Your task to perform on an android device: turn on translation in the chrome app Image 0: 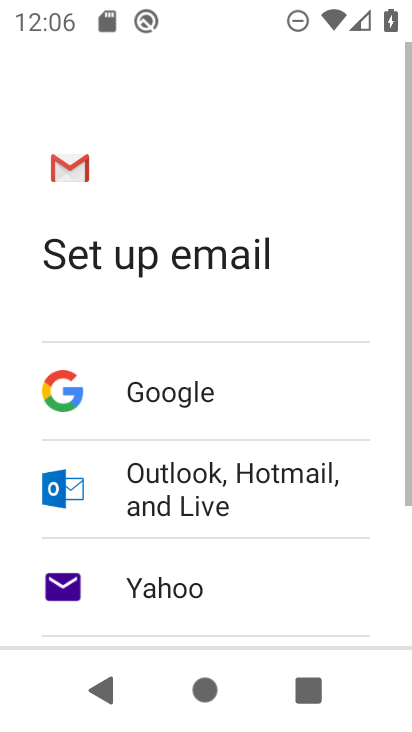
Step 0: press home button
Your task to perform on an android device: turn on translation in the chrome app Image 1: 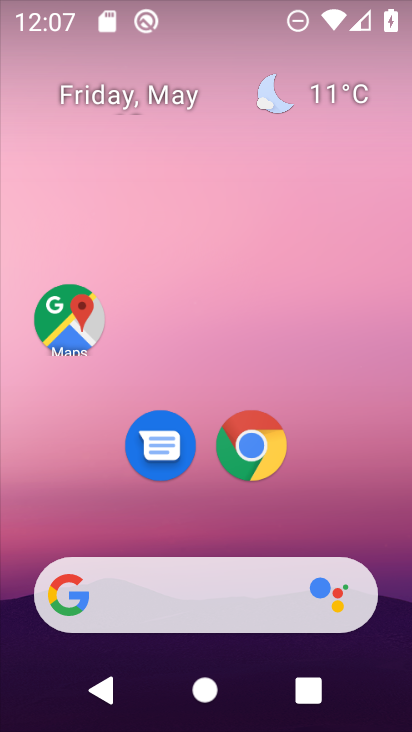
Step 1: click (240, 440)
Your task to perform on an android device: turn on translation in the chrome app Image 2: 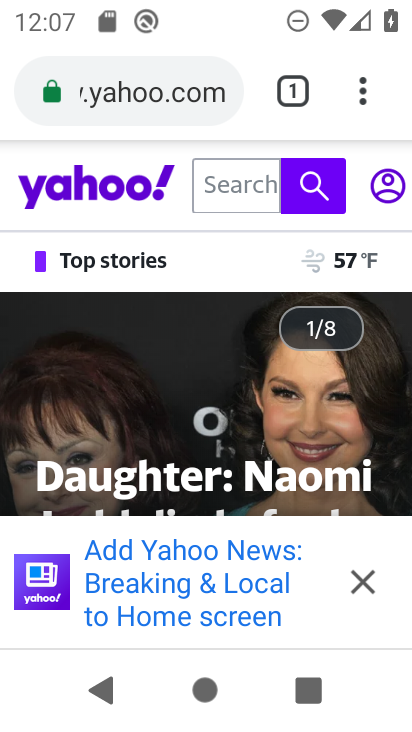
Step 2: drag from (359, 86) to (113, 463)
Your task to perform on an android device: turn on translation in the chrome app Image 3: 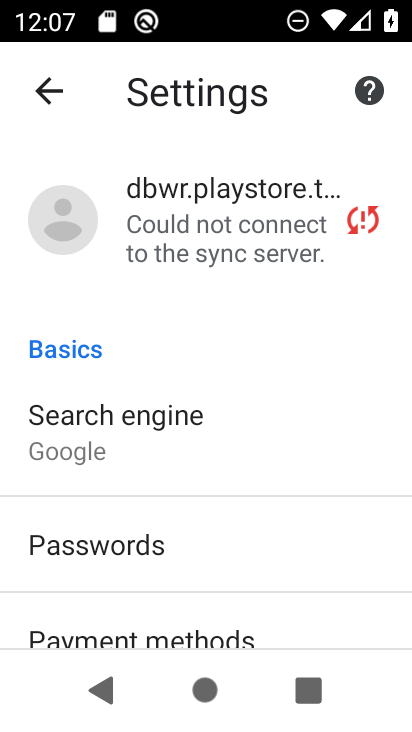
Step 3: drag from (133, 569) to (111, 224)
Your task to perform on an android device: turn on translation in the chrome app Image 4: 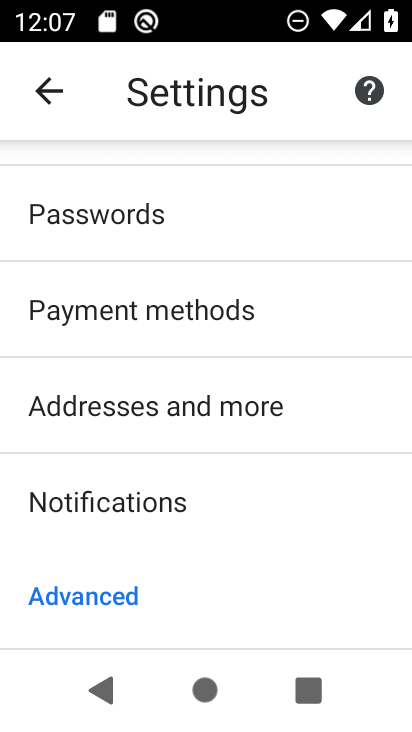
Step 4: drag from (125, 570) to (135, 199)
Your task to perform on an android device: turn on translation in the chrome app Image 5: 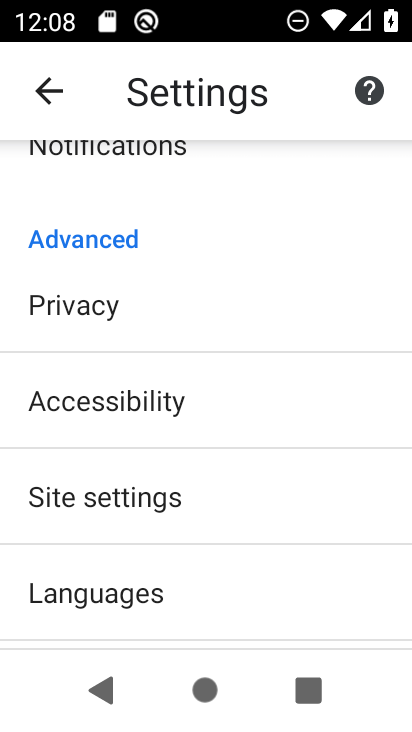
Step 5: click (100, 601)
Your task to perform on an android device: turn on translation in the chrome app Image 6: 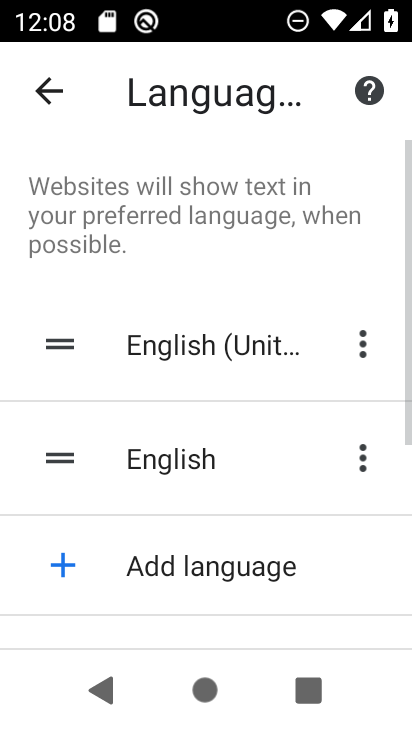
Step 6: task complete